Your task to perform on an android device: Open sound settings Image 0: 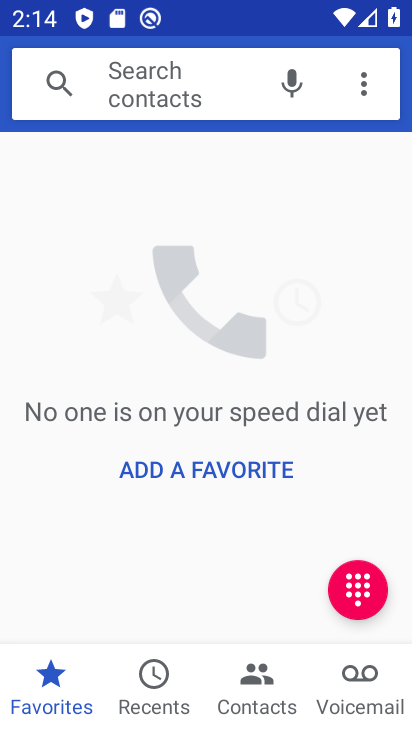
Step 0: press home button
Your task to perform on an android device: Open sound settings Image 1: 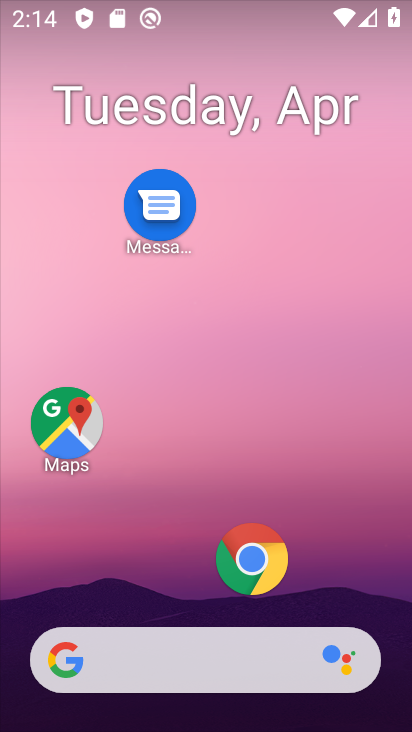
Step 1: drag from (147, 598) to (248, 120)
Your task to perform on an android device: Open sound settings Image 2: 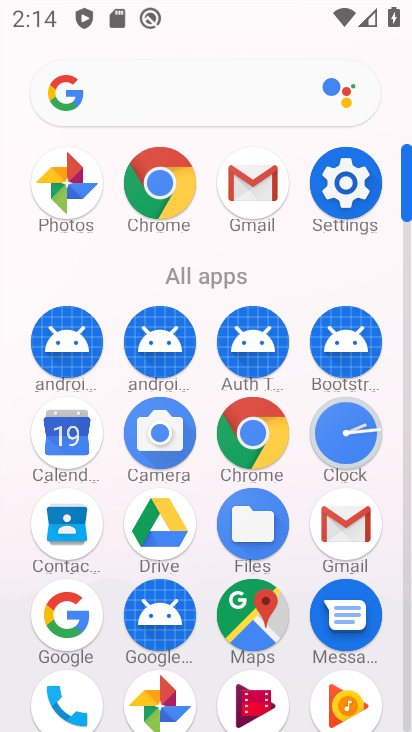
Step 2: click (321, 205)
Your task to perform on an android device: Open sound settings Image 3: 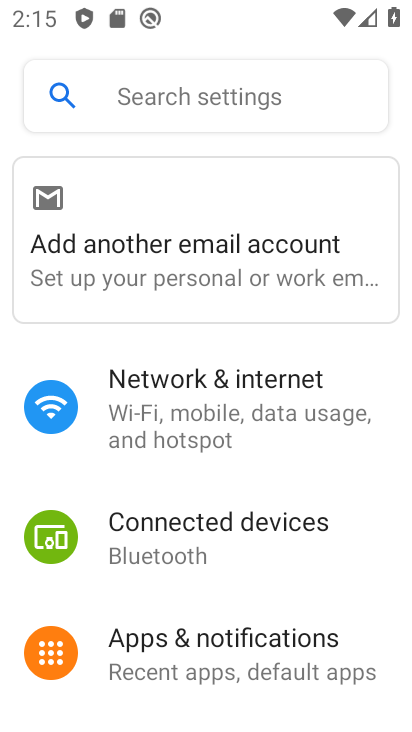
Step 3: drag from (209, 590) to (262, 271)
Your task to perform on an android device: Open sound settings Image 4: 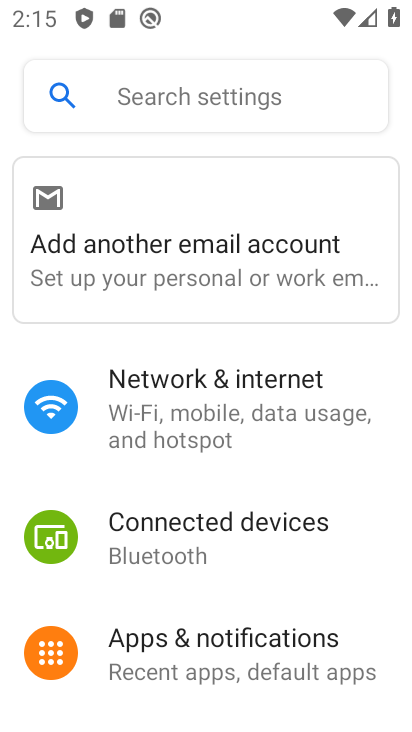
Step 4: drag from (83, 456) to (127, 196)
Your task to perform on an android device: Open sound settings Image 5: 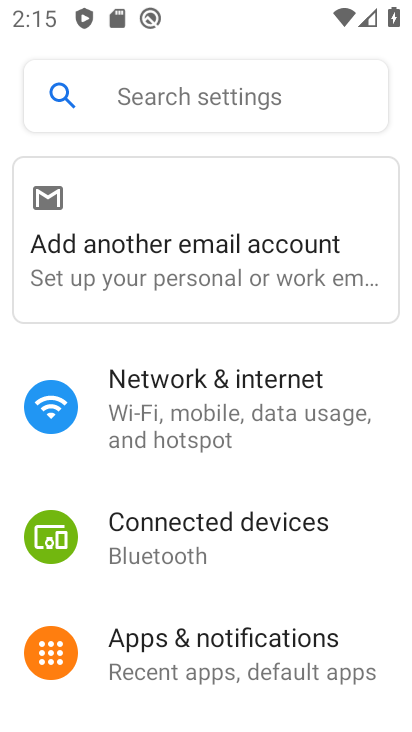
Step 5: drag from (292, 333) to (307, 62)
Your task to perform on an android device: Open sound settings Image 6: 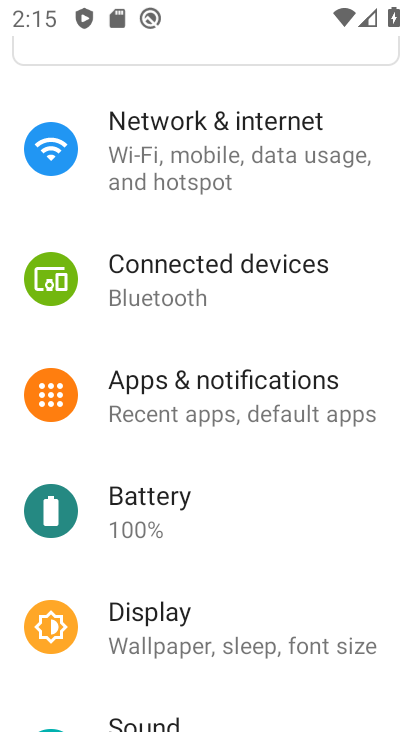
Step 6: drag from (235, 156) to (238, 5)
Your task to perform on an android device: Open sound settings Image 7: 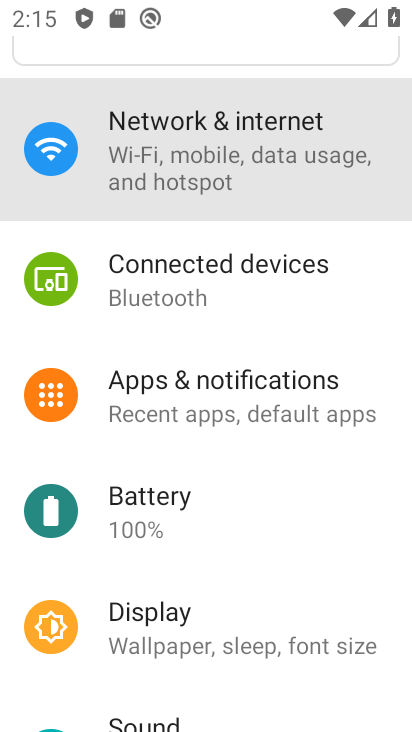
Step 7: drag from (229, 492) to (273, 155)
Your task to perform on an android device: Open sound settings Image 8: 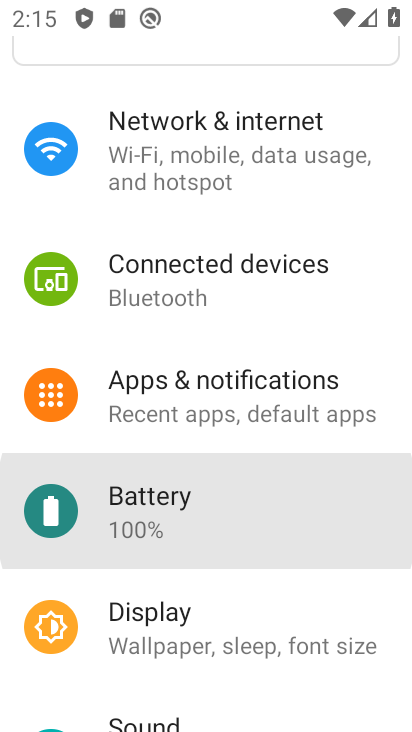
Step 8: drag from (240, 548) to (304, 178)
Your task to perform on an android device: Open sound settings Image 9: 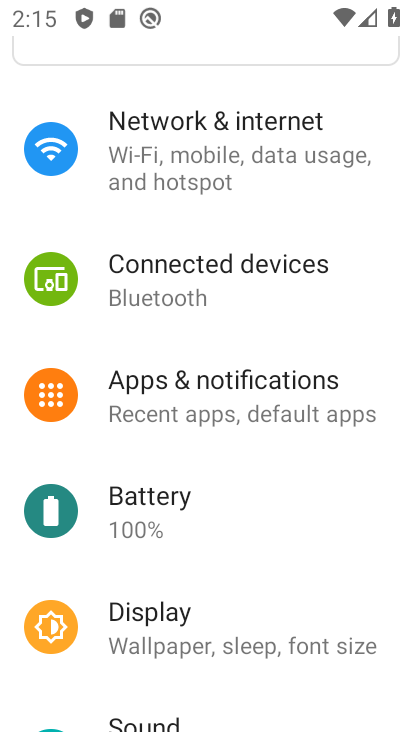
Step 9: click (171, 714)
Your task to perform on an android device: Open sound settings Image 10: 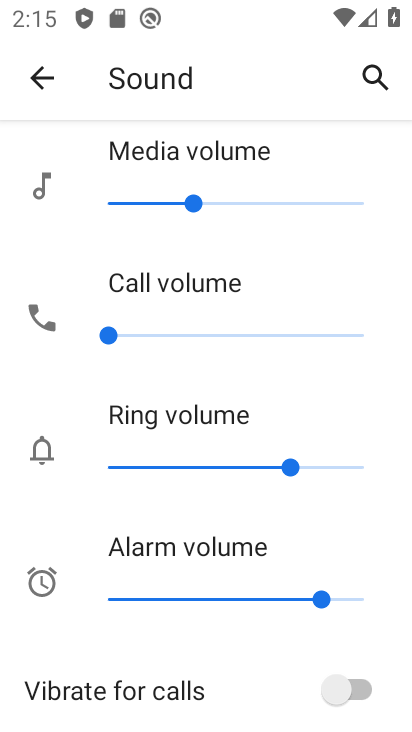
Step 10: task complete